Your task to perform on an android device: open app "Flipkart Online Shopping App" Image 0: 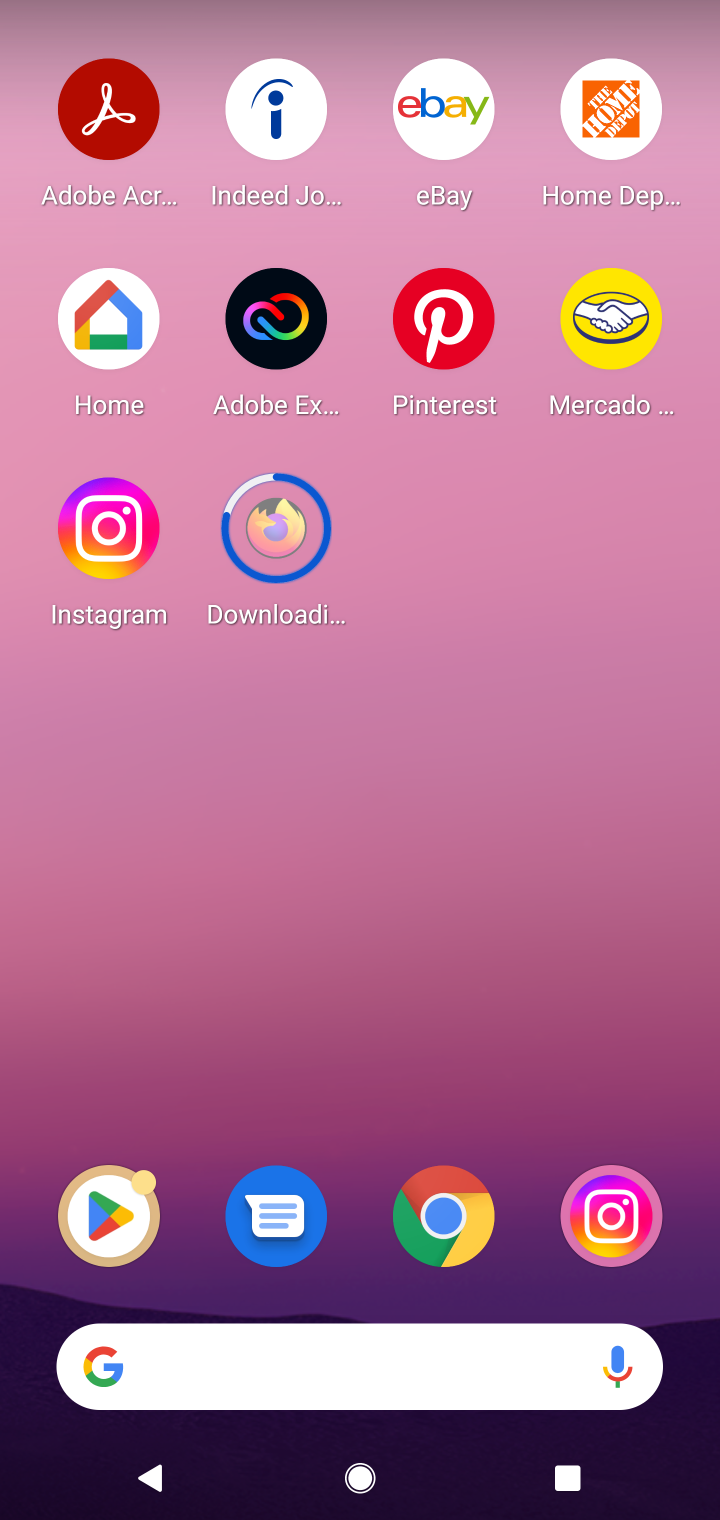
Step 0: click (110, 1200)
Your task to perform on an android device: open app "Flipkart Online Shopping App" Image 1: 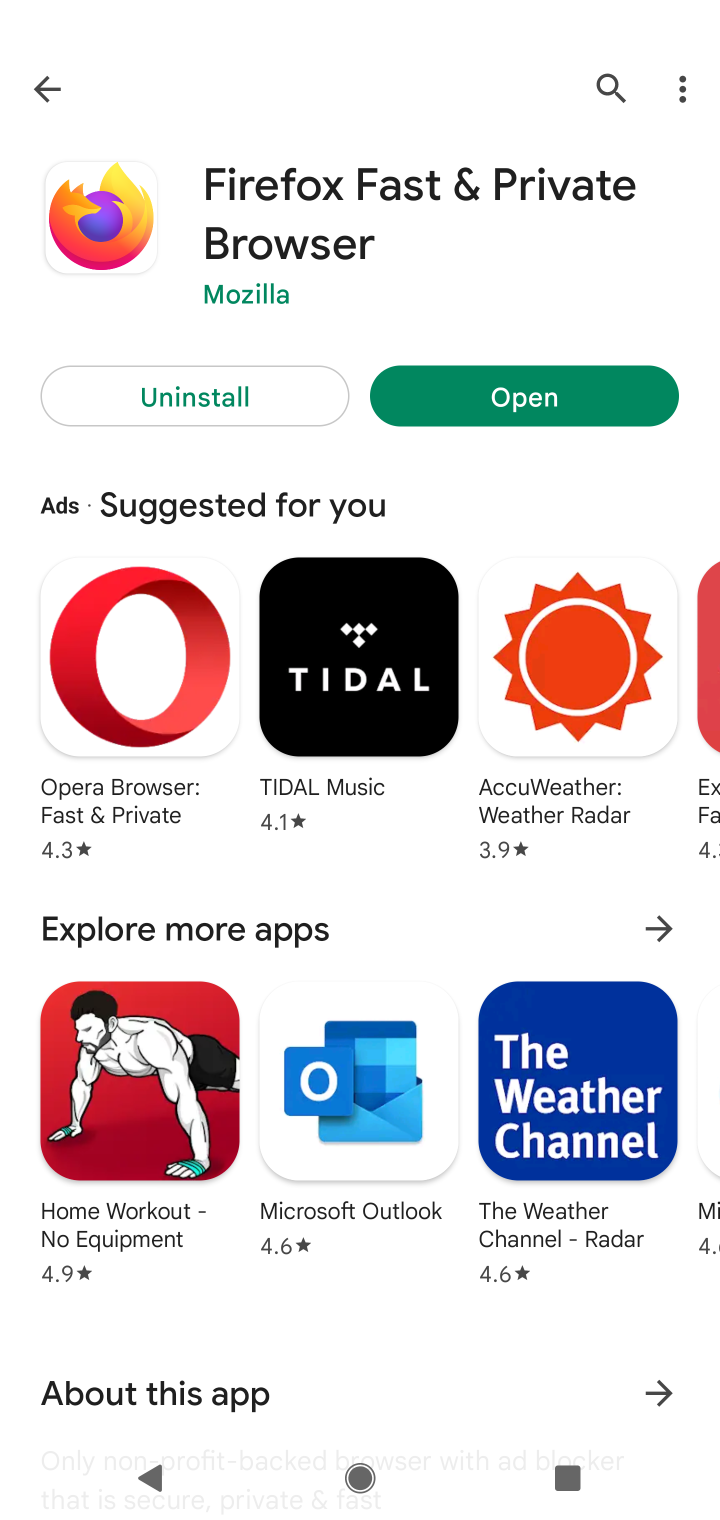
Step 1: click (552, 406)
Your task to perform on an android device: open app "Flipkart Online Shopping App" Image 2: 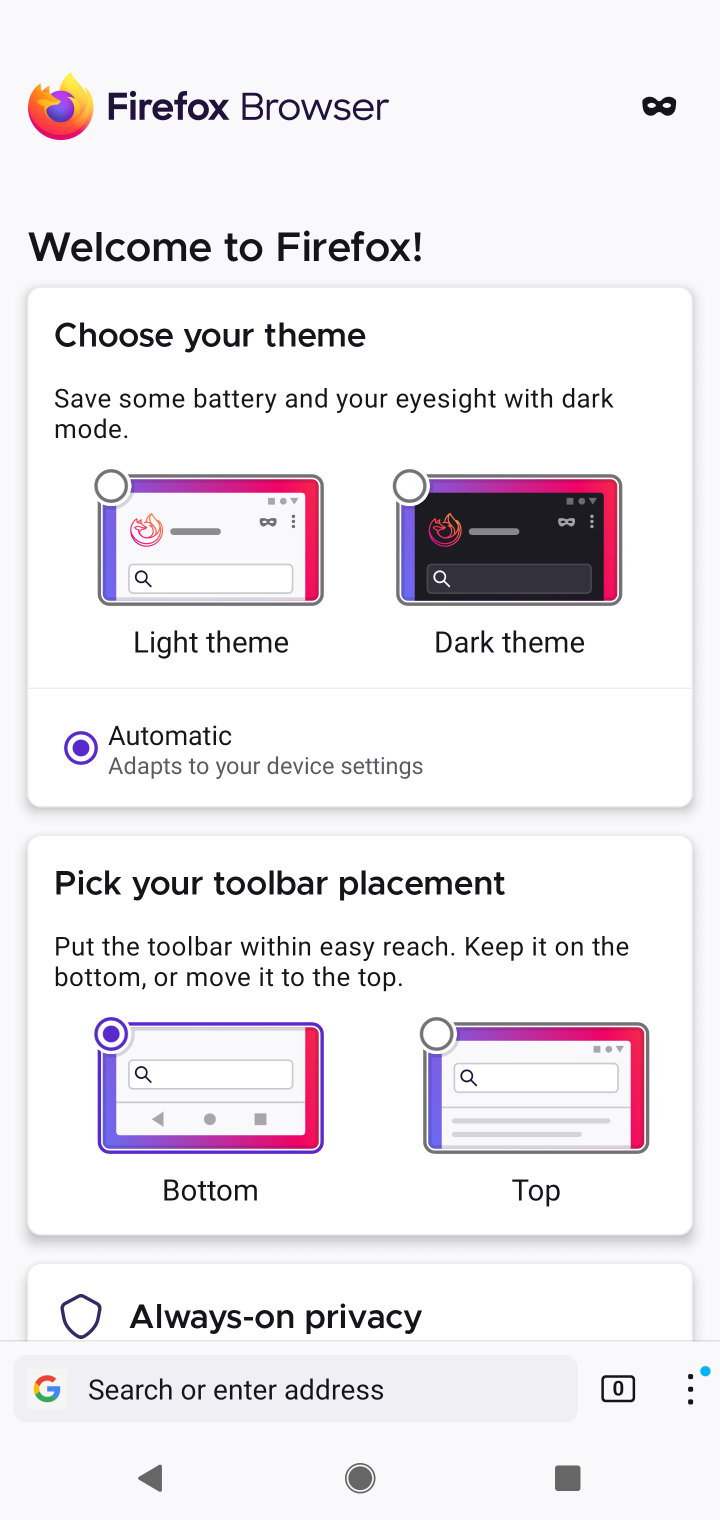
Step 2: press home button
Your task to perform on an android device: open app "Flipkart Online Shopping App" Image 3: 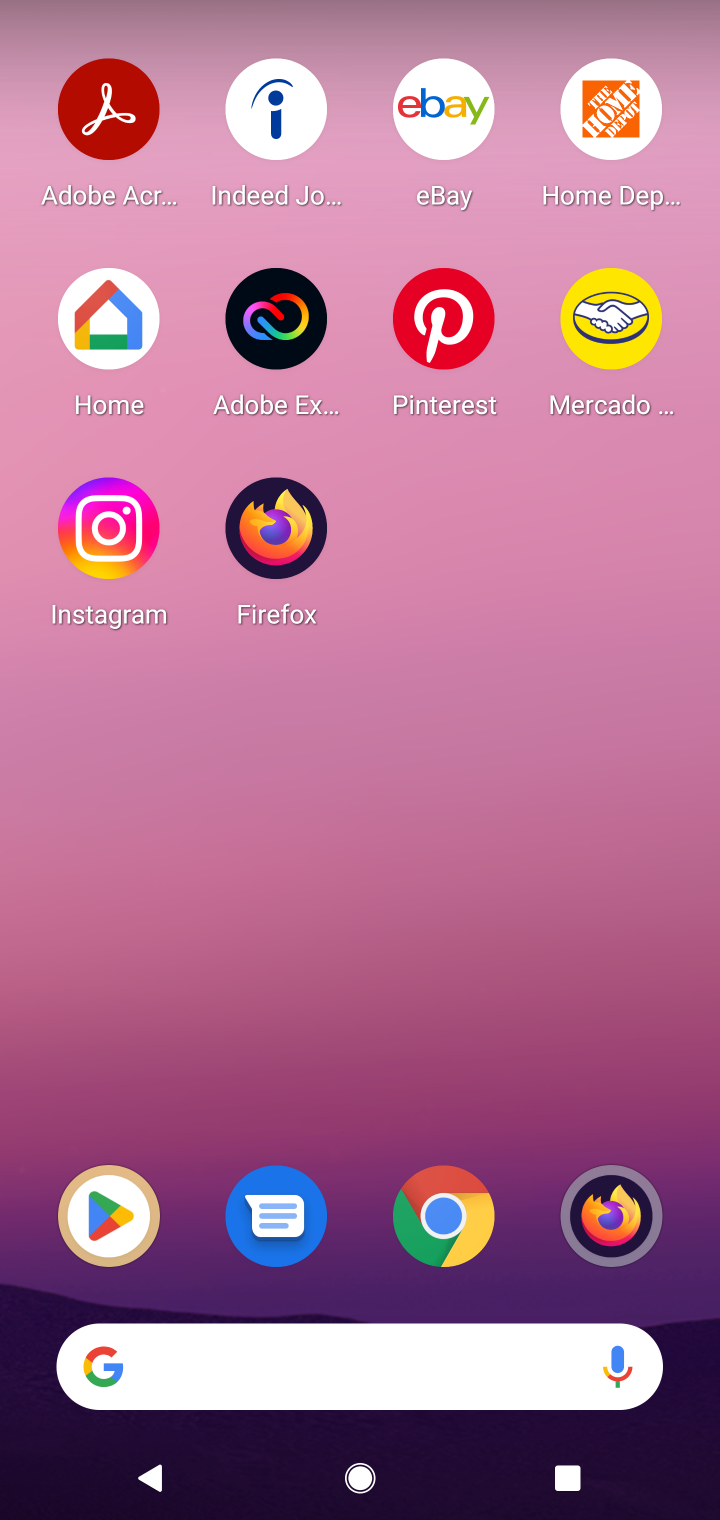
Step 3: click (516, 952)
Your task to perform on an android device: open app "Flipkart Online Shopping App" Image 4: 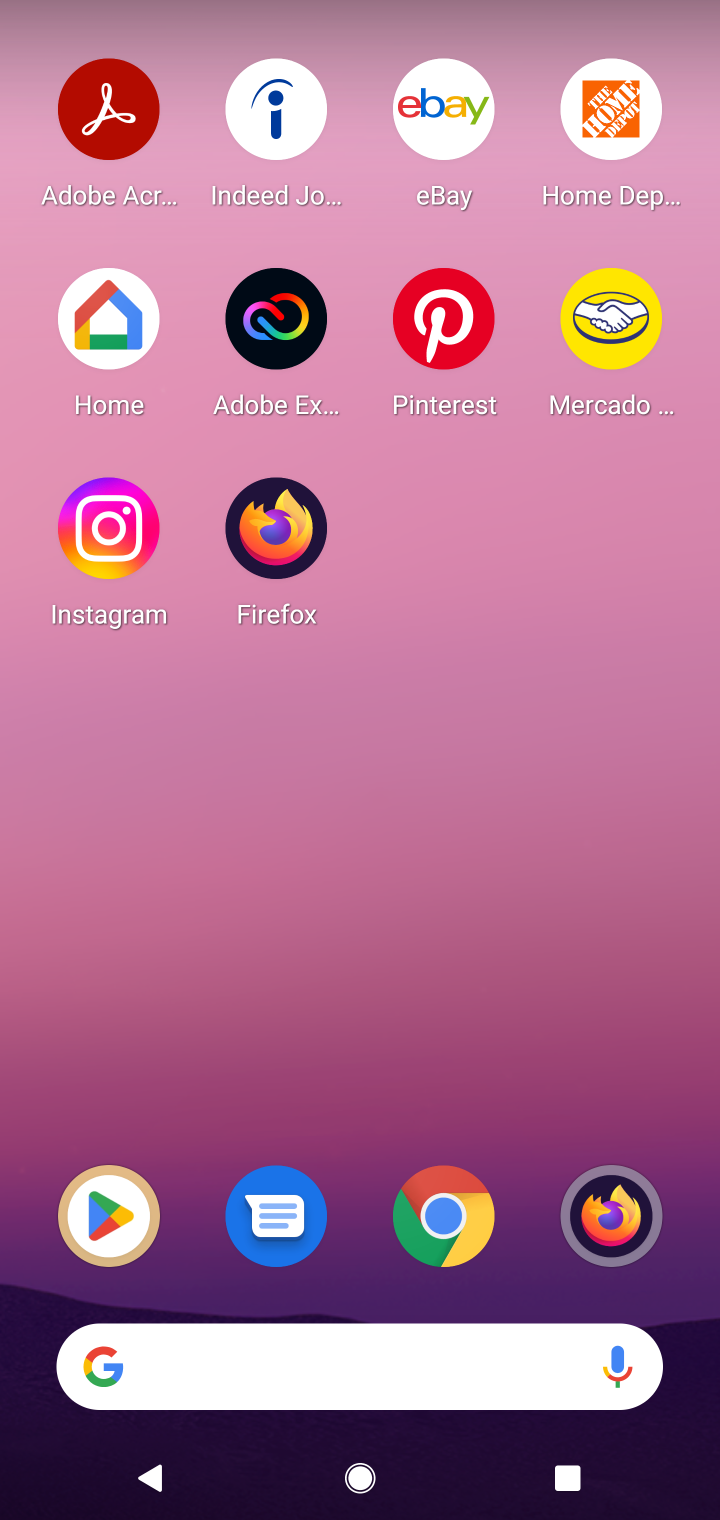
Step 4: click (122, 1229)
Your task to perform on an android device: open app "Flipkart Online Shopping App" Image 5: 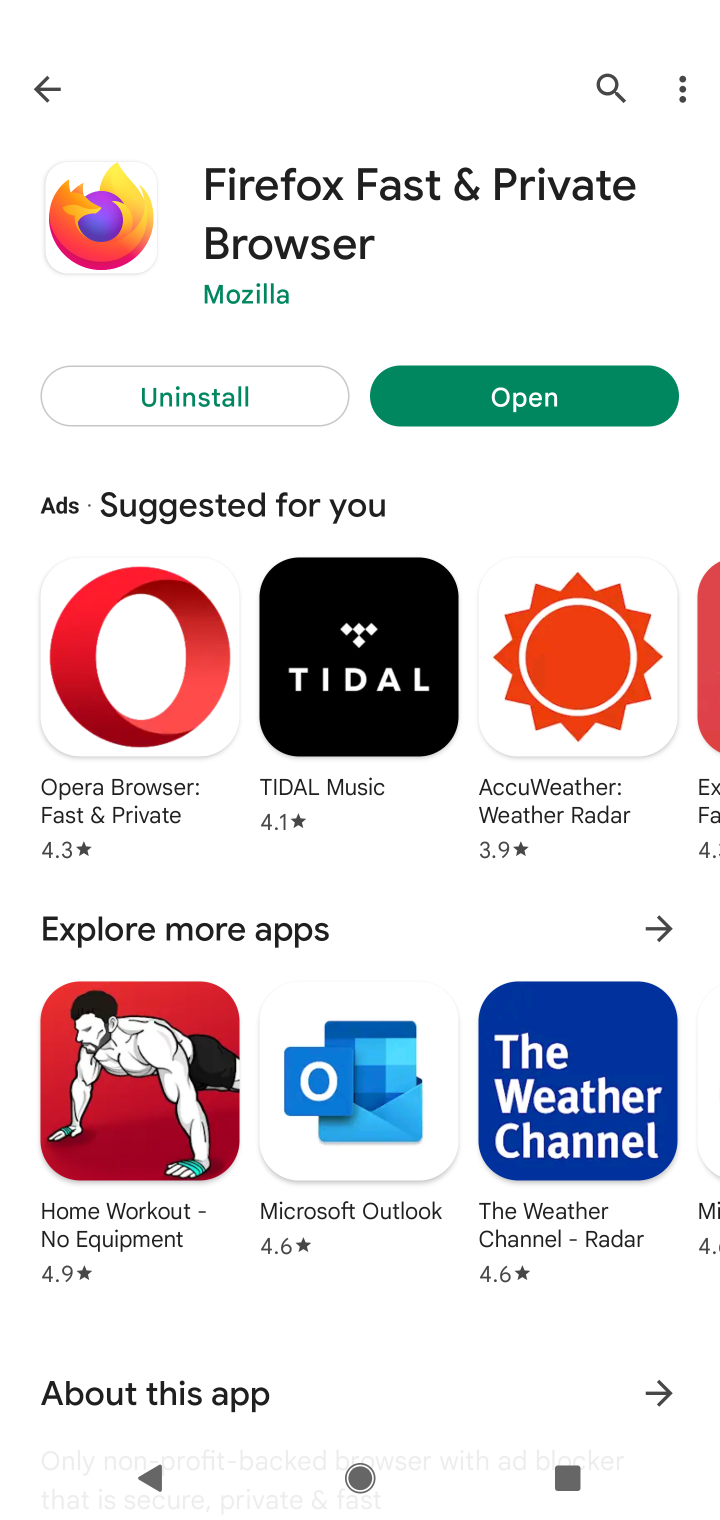
Step 5: click (613, 105)
Your task to perform on an android device: open app "Flipkart Online Shopping App" Image 6: 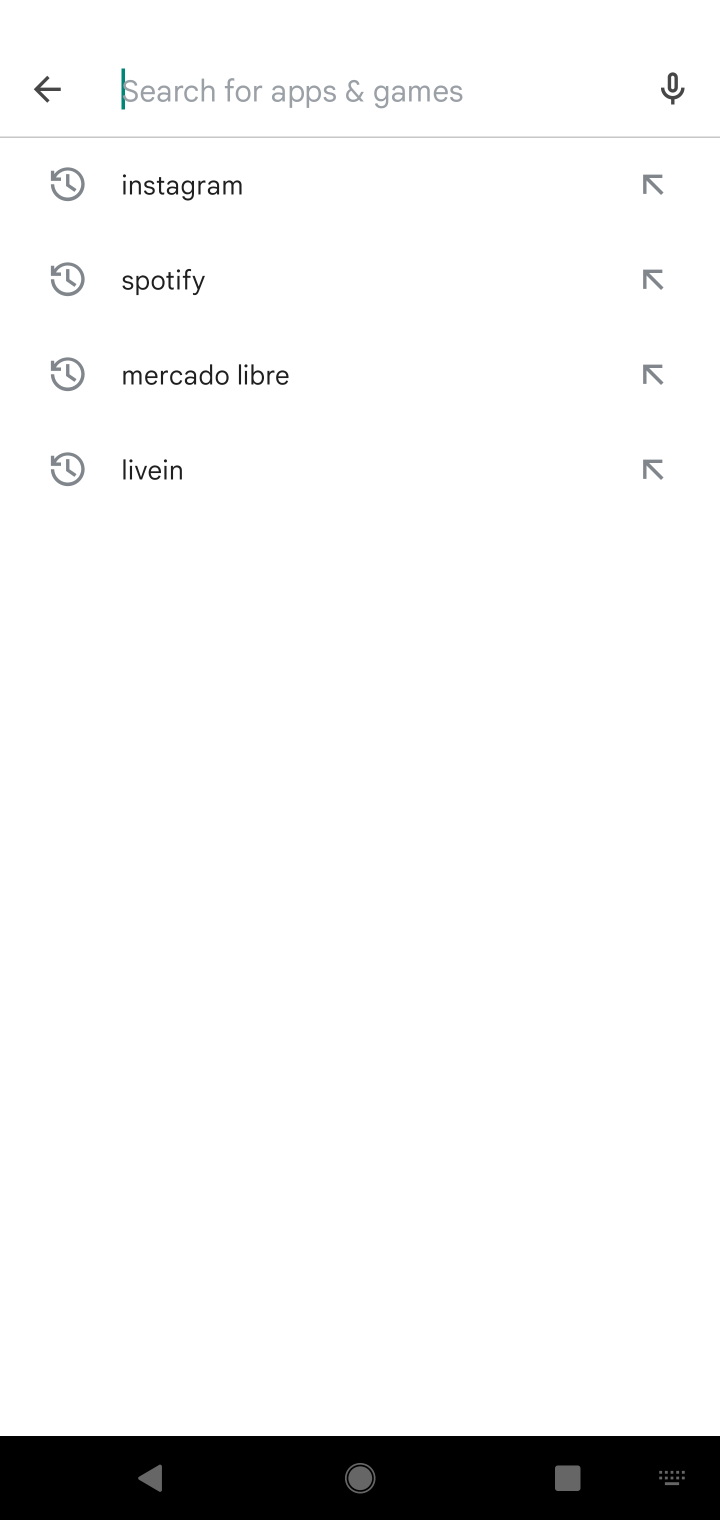
Step 6: type "flipkart"
Your task to perform on an android device: open app "Flipkart Online Shopping App" Image 7: 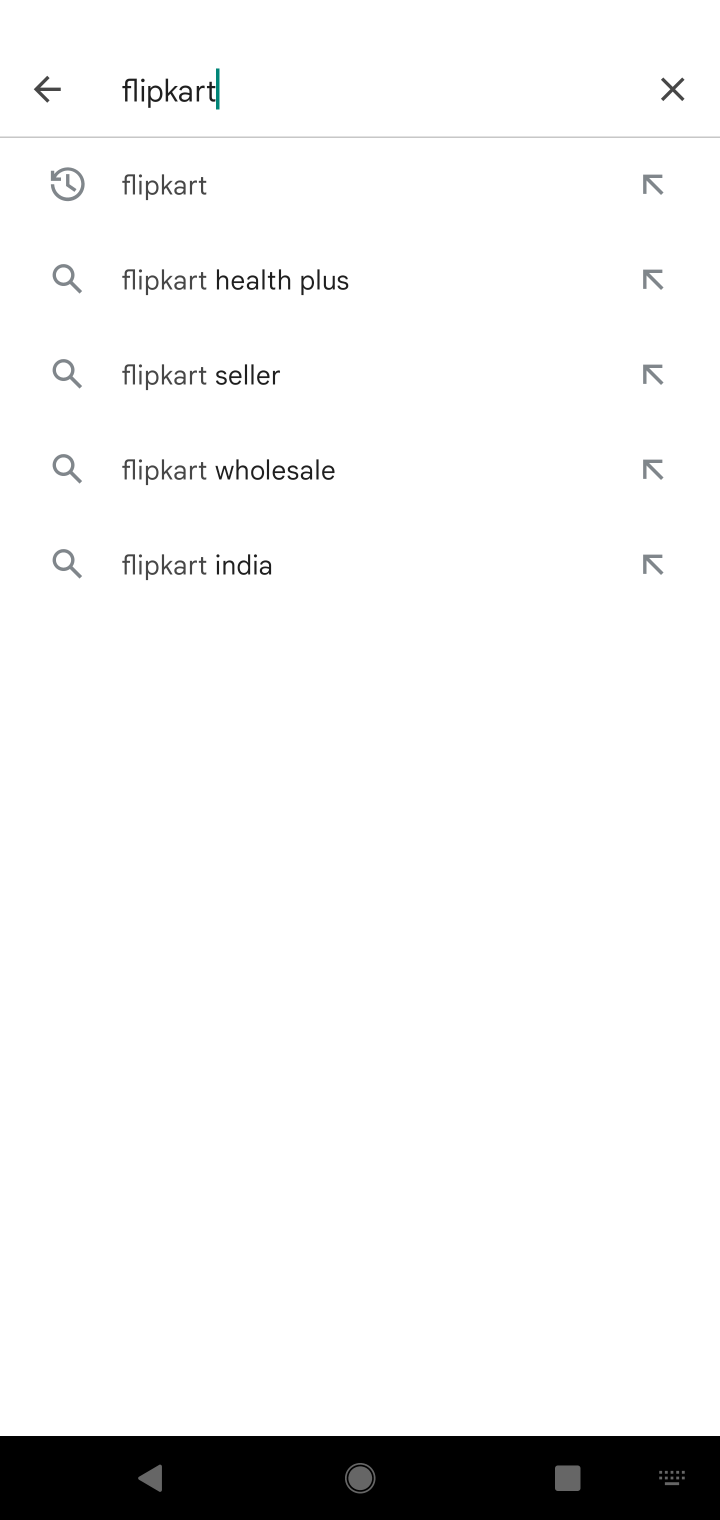
Step 7: click (242, 170)
Your task to perform on an android device: open app "Flipkart Online Shopping App" Image 8: 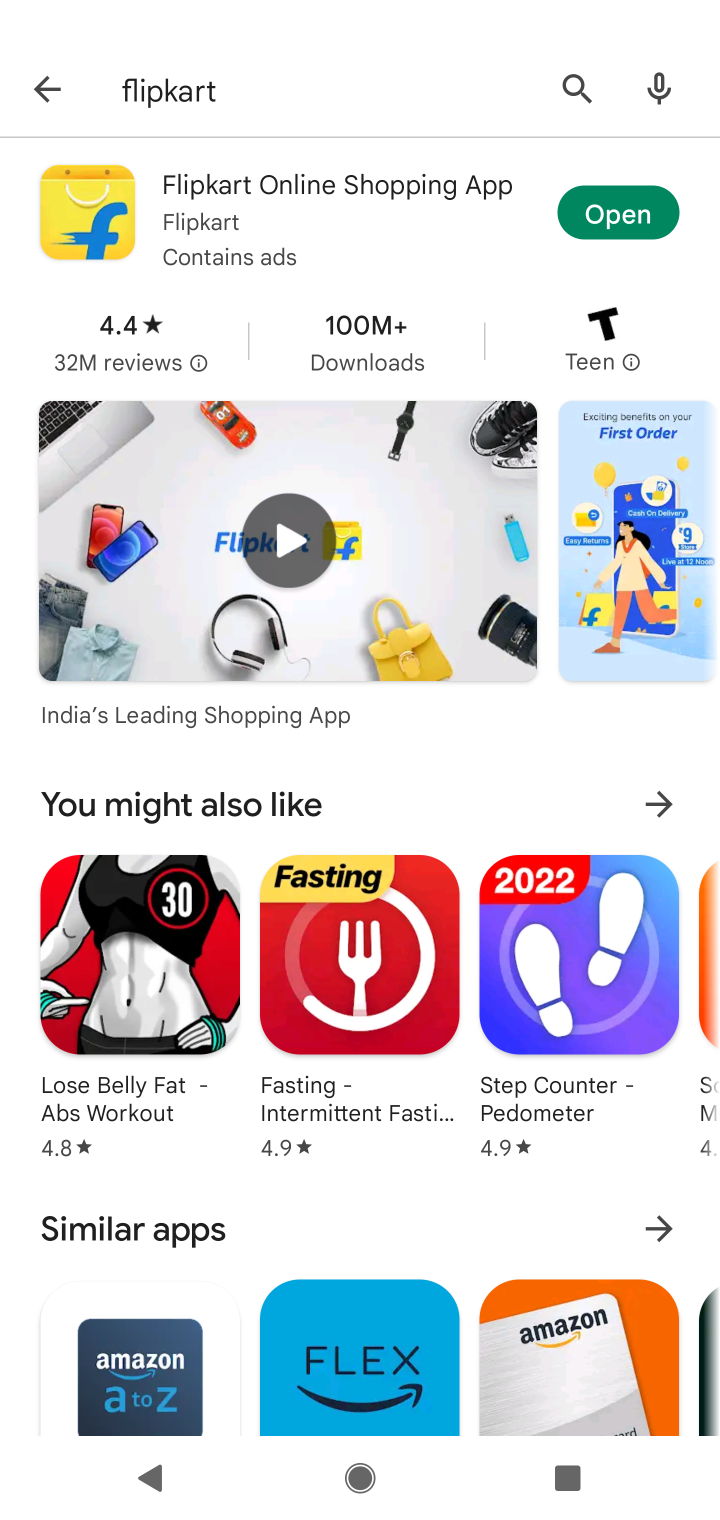
Step 8: click (584, 213)
Your task to perform on an android device: open app "Flipkart Online Shopping App" Image 9: 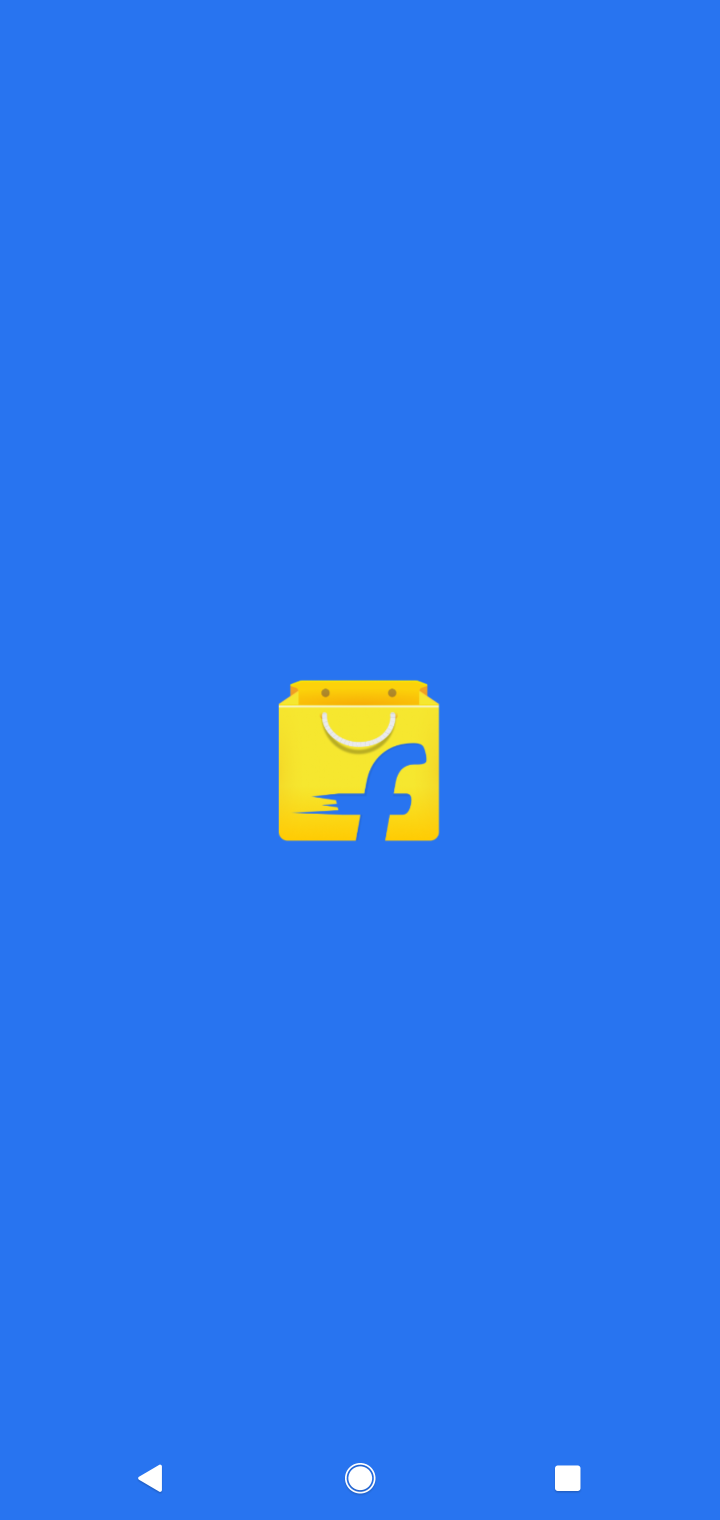
Step 9: task complete